Your task to perform on an android device: turn off data saver in the chrome app Image 0: 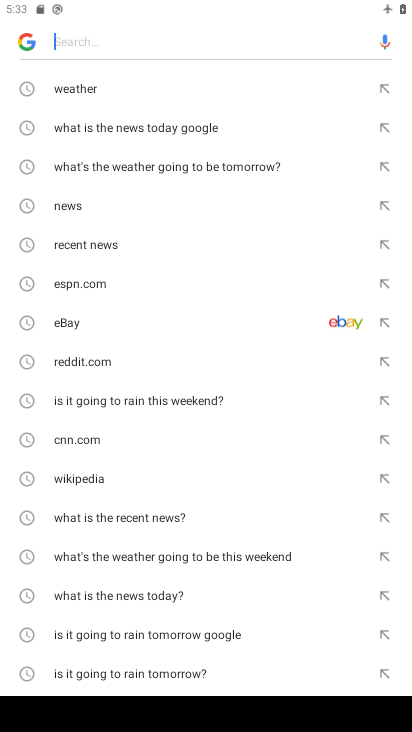
Step 0: press home button
Your task to perform on an android device: turn off data saver in the chrome app Image 1: 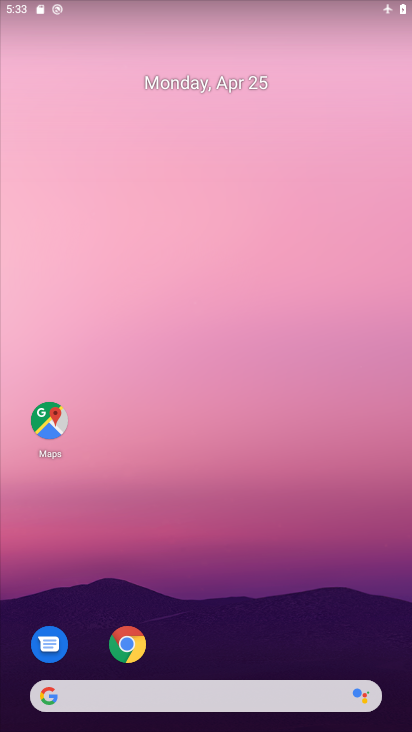
Step 1: click (140, 638)
Your task to perform on an android device: turn off data saver in the chrome app Image 2: 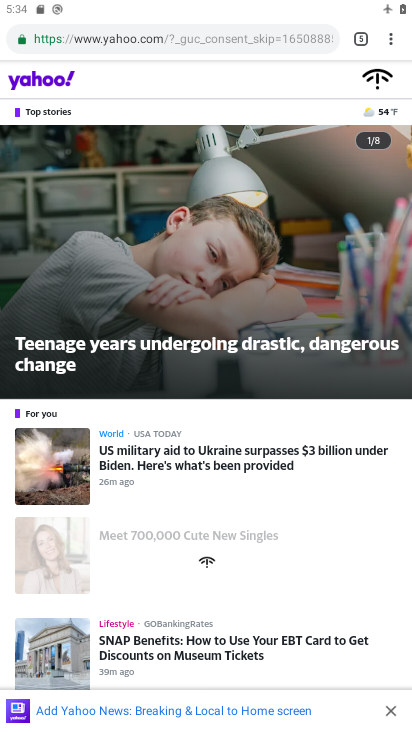
Step 2: click (387, 34)
Your task to perform on an android device: turn off data saver in the chrome app Image 3: 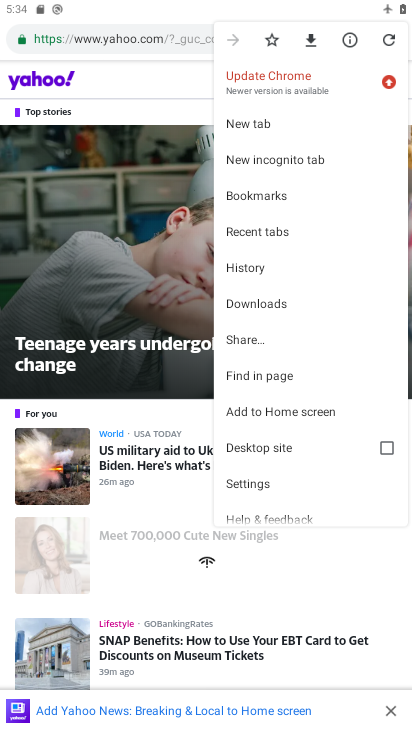
Step 3: click (258, 481)
Your task to perform on an android device: turn off data saver in the chrome app Image 4: 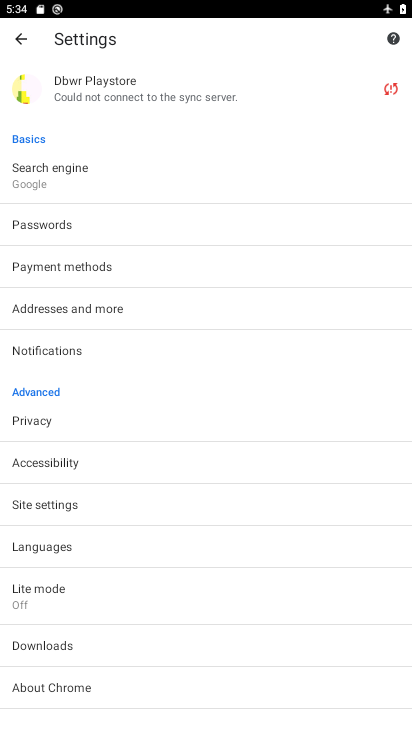
Step 4: click (194, 604)
Your task to perform on an android device: turn off data saver in the chrome app Image 5: 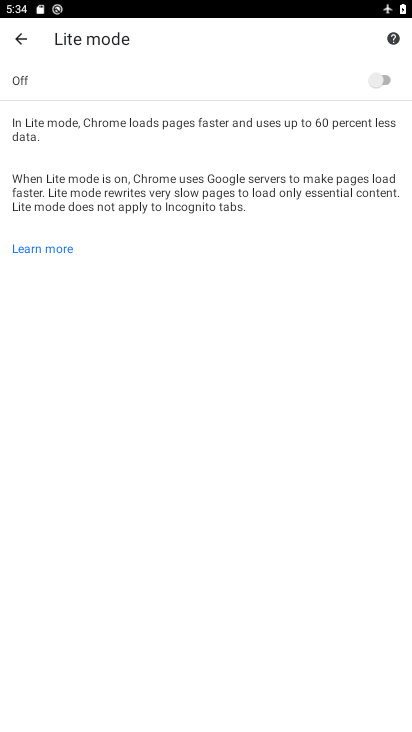
Step 5: task complete